Your task to perform on an android device: move an email to a new category in the gmail app Image 0: 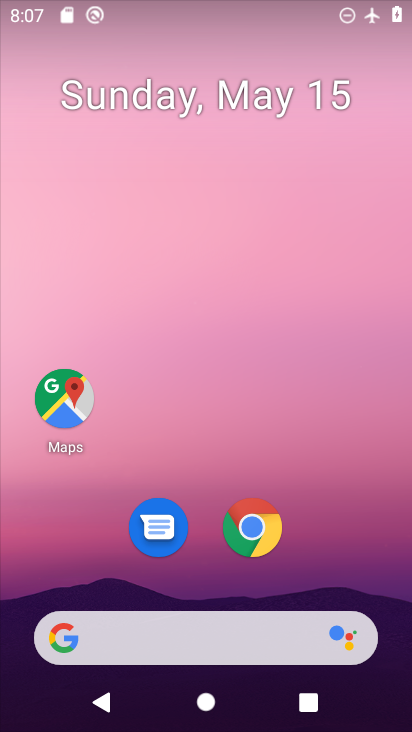
Step 0: drag from (205, 585) to (250, 229)
Your task to perform on an android device: move an email to a new category in the gmail app Image 1: 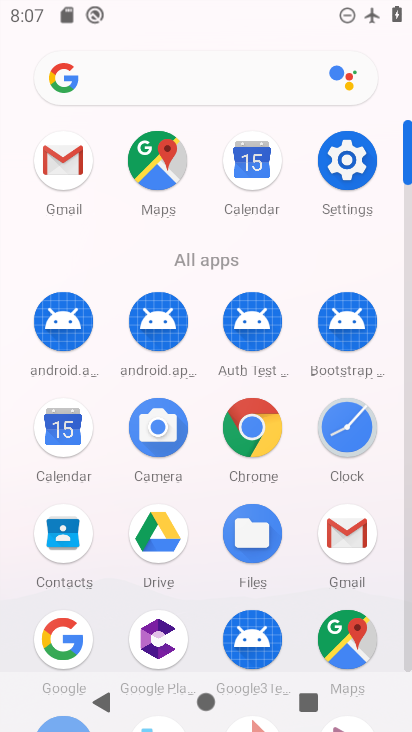
Step 1: click (80, 158)
Your task to perform on an android device: move an email to a new category in the gmail app Image 2: 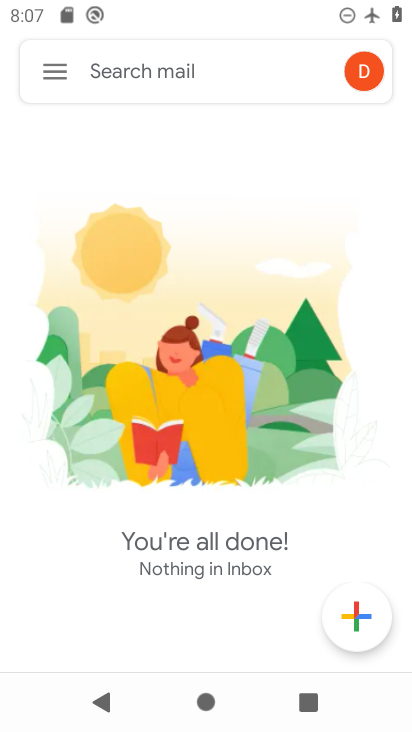
Step 2: click (61, 65)
Your task to perform on an android device: move an email to a new category in the gmail app Image 3: 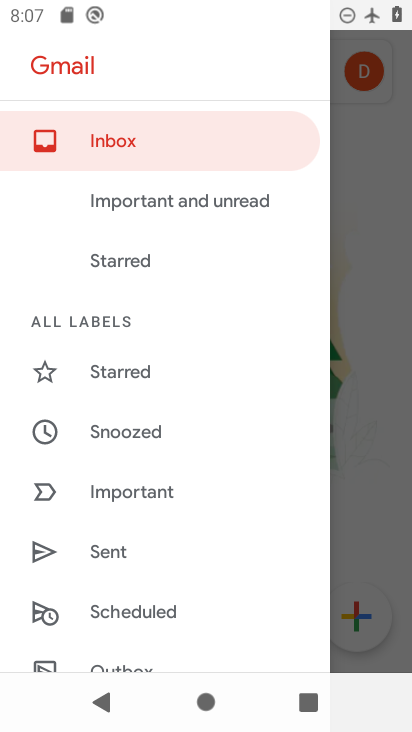
Step 3: drag from (161, 488) to (201, 354)
Your task to perform on an android device: move an email to a new category in the gmail app Image 4: 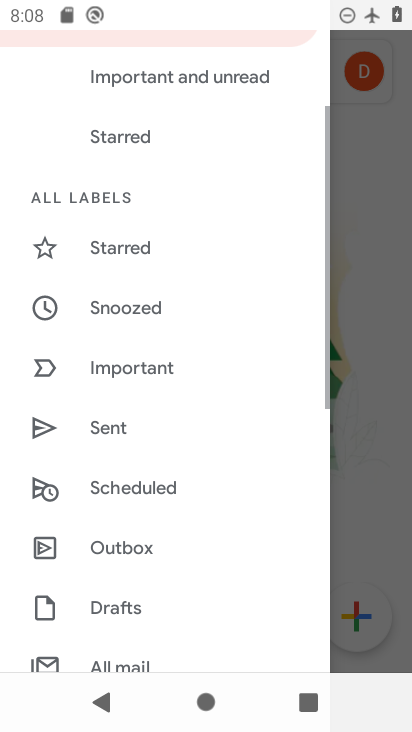
Step 4: drag from (161, 526) to (186, 350)
Your task to perform on an android device: move an email to a new category in the gmail app Image 5: 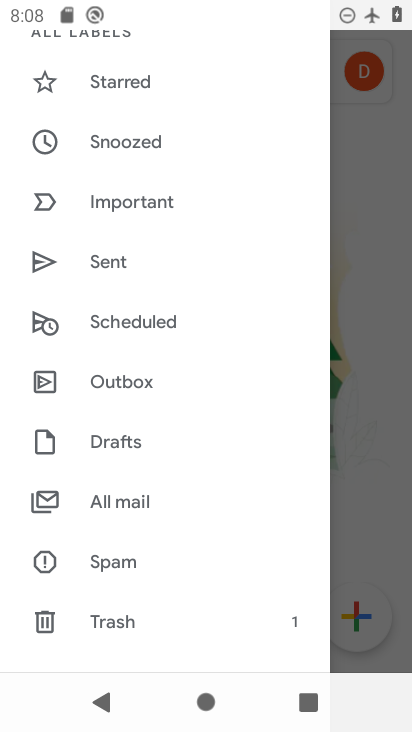
Step 5: click (140, 517)
Your task to perform on an android device: move an email to a new category in the gmail app Image 6: 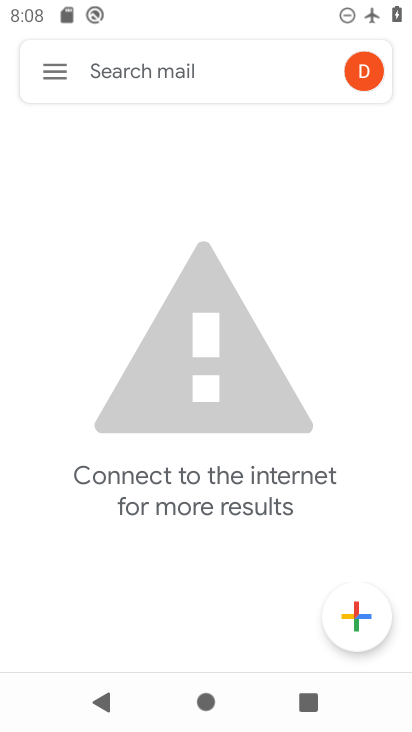
Step 6: task complete